Your task to perform on an android device: turn off translation in the chrome app Image 0: 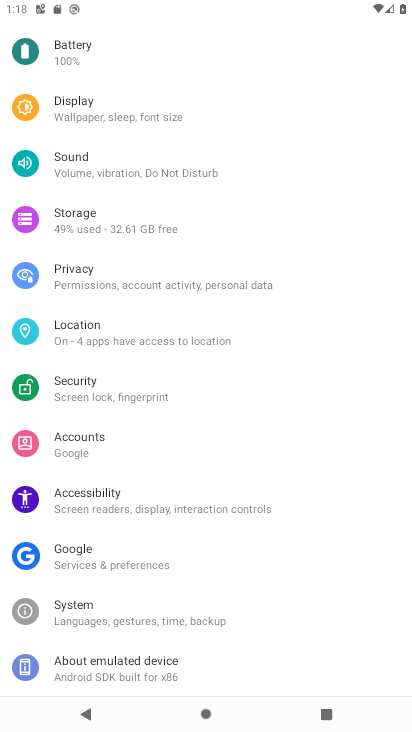
Step 0: click (227, 686)
Your task to perform on an android device: turn off translation in the chrome app Image 1: 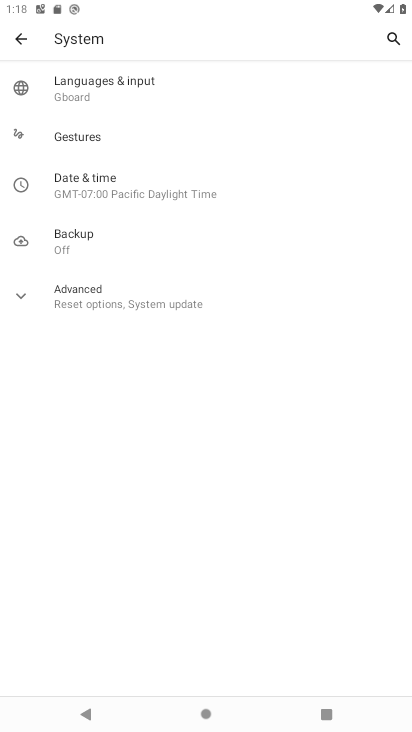
Step 1: press home button
Your task to perform on an android device: turn off translation in the chrome app Image 2: 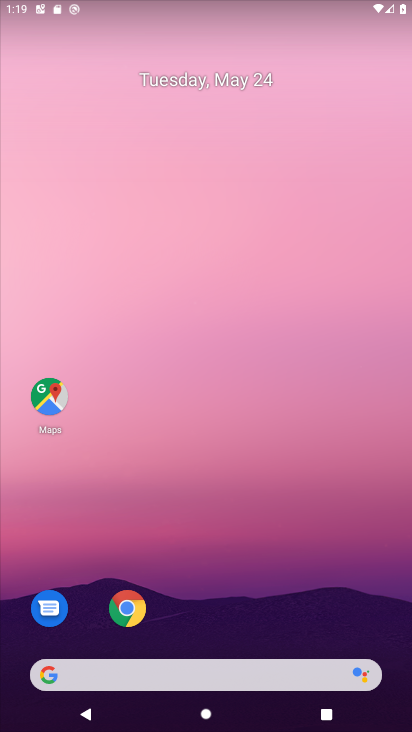
Step 2: click (132, 616)
Your task to perform on an android device: turn off translation in the chrome app Image 3: 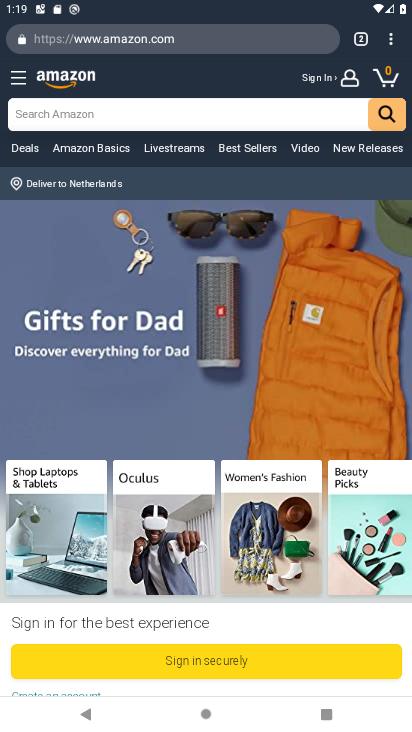
Step 3: click (394, 36)
Your task to perform on an android device: turn off translation in the chrome app Image 4: 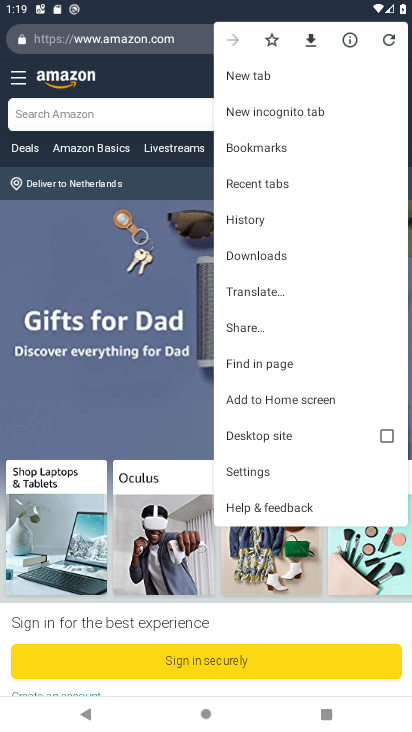
Step 4: click (260, 465)
Your task to perform on an android device: turn off translation in the chrome app Image 5: 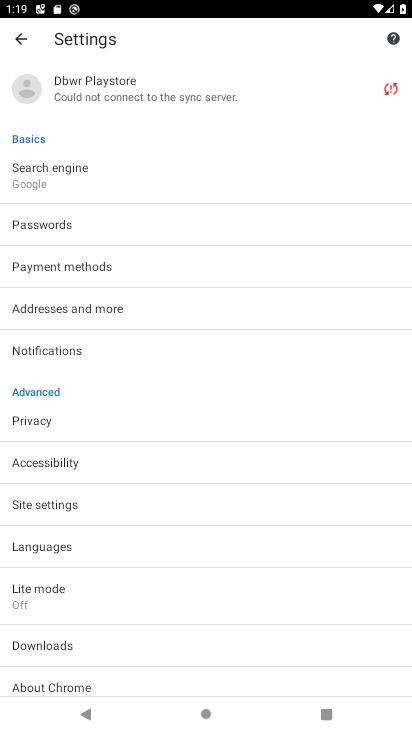
Step 5: click (132, 561)
Your task to perform on an android device: turn off translation in the chrome app Image 6: 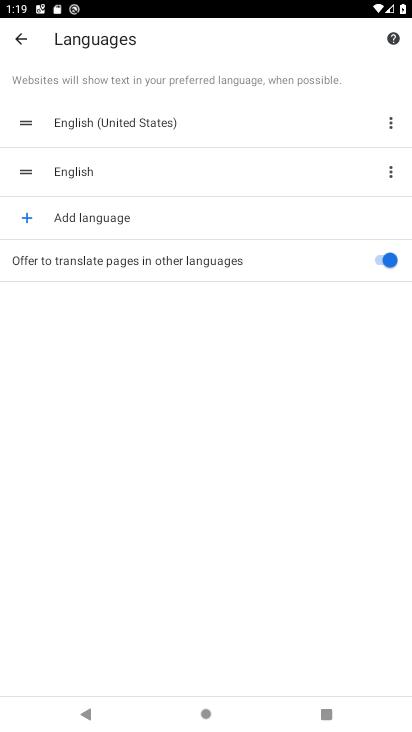
Step 6: click (373, 264)
Your task to perform on an android device: turn off translation in the chrome app Image 7: 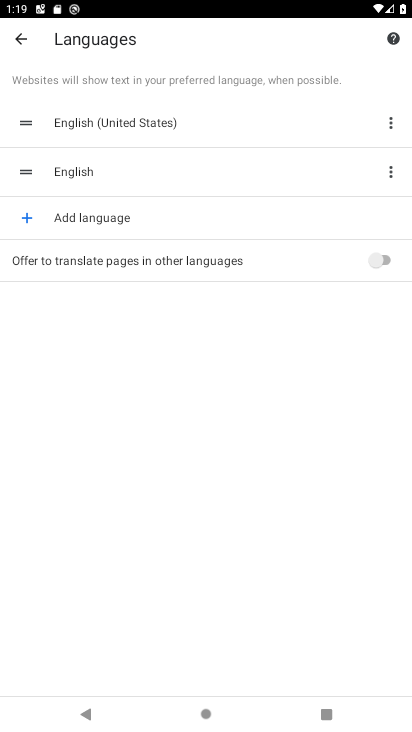
Step 7: task complete